Your task to perform on an android device: Open Amazon Image 0: 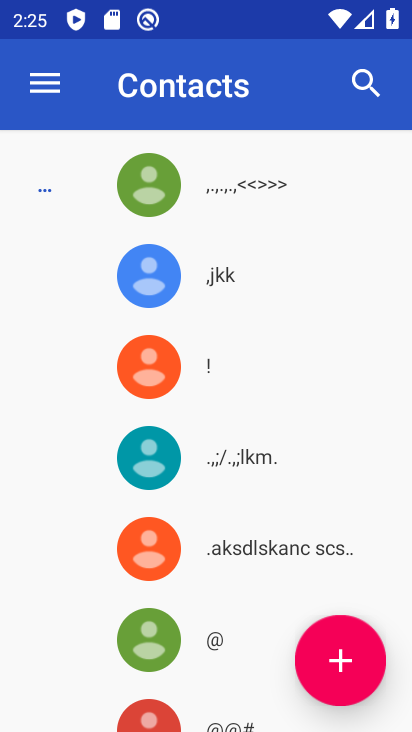
Step 0: press home button
Your task to perform on an android device: Open Amazon Image 1: 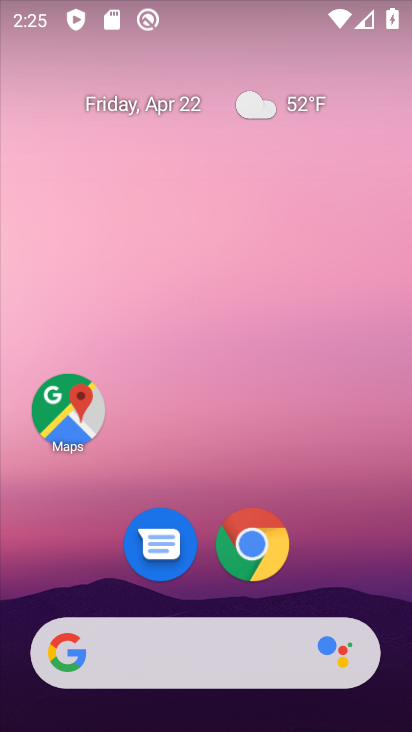
Step 1: click (250, 556)
Your task to perform on an android device: Open Amazon Image 2: 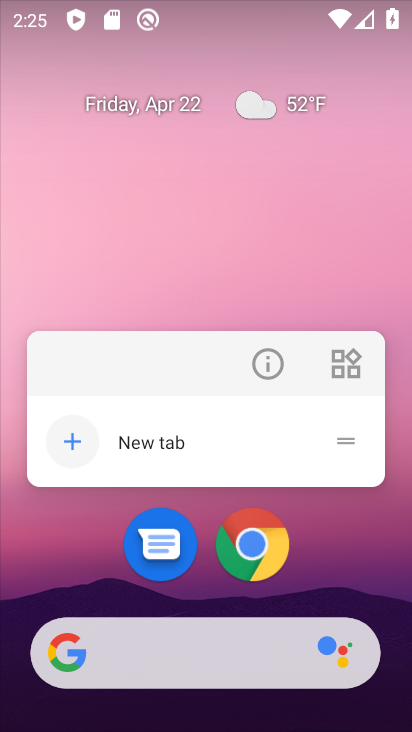
Step 2: click (250, 556)
Your task to perform on an android device: Open Amazon Image 3: 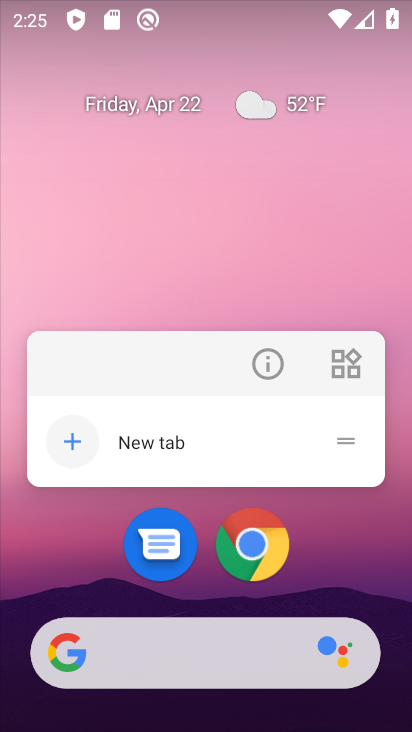
Step 3: click (250, 556)
Your task to perform on an android device: Open Amazon Image 4: 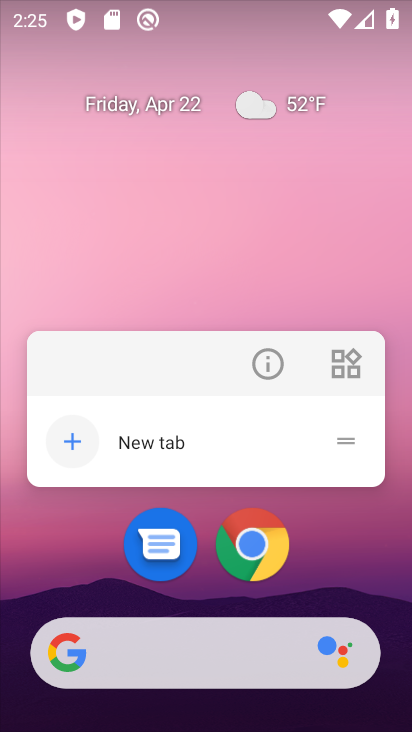
Step 4: click (108, 241)
Your task to perform on an android device: Open Amazon Image 5: 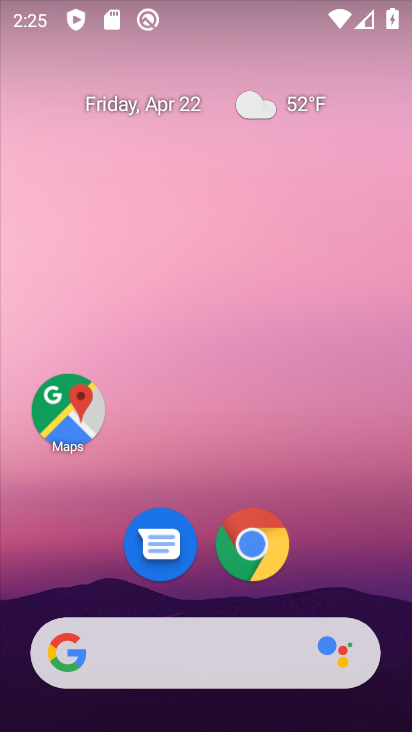
Step 5: click (262, 540)
Your task to perform on an android device: Open Amazon Image 6: 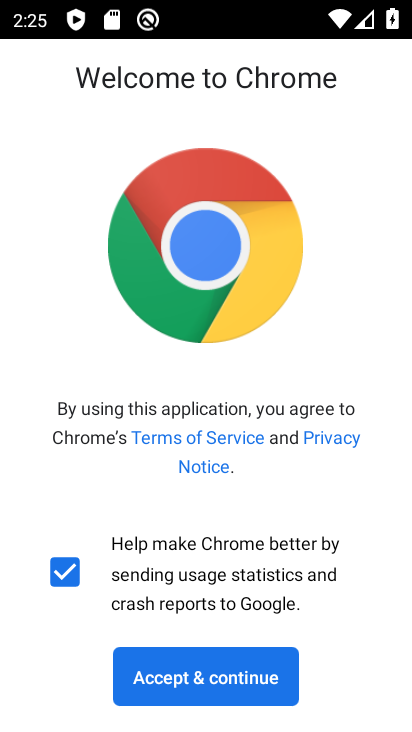
Step 6: click (262, 682)
Your task to perform on an android device: Open Amazon Image 7: 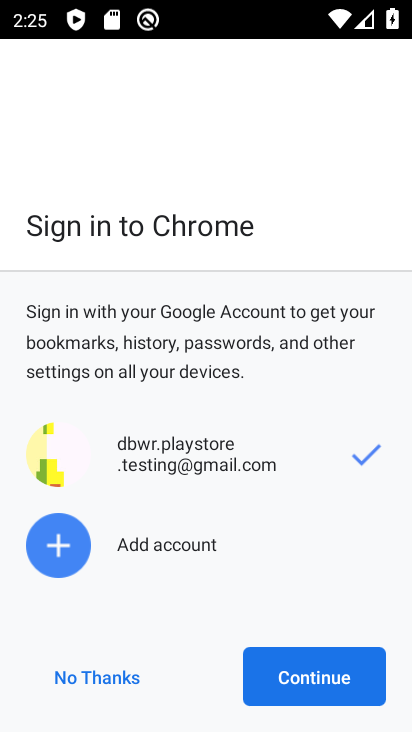
Step 7: click (262, 682)
Your task to perform on an android device: Open Amazon Image 8: 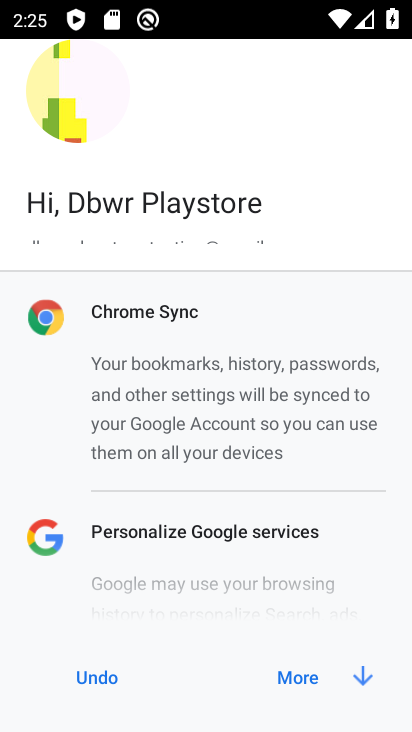
Step 8: click (287, 678)
Your task to perform on an android device: Open Amazon Image 9: 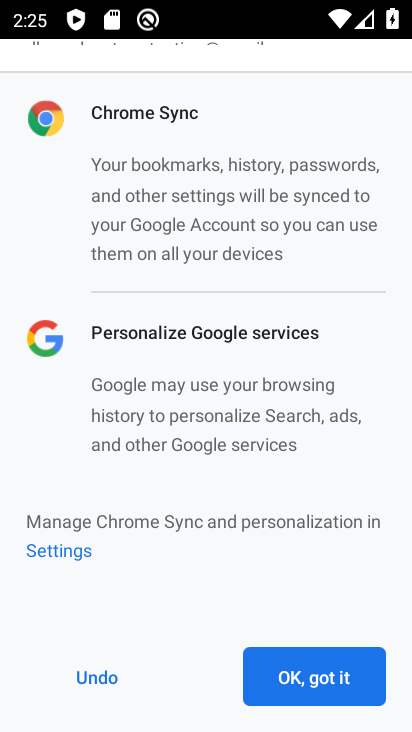
Step 9: click (287, 678)
Your task to perform on an android device: Open Amazon Image 10: 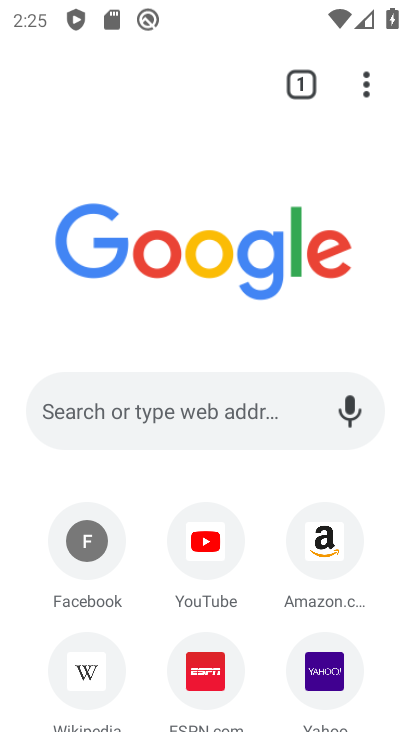
Step 10: click (327, 541)
Your task to perform on an android device: Open Amazon Image 11: 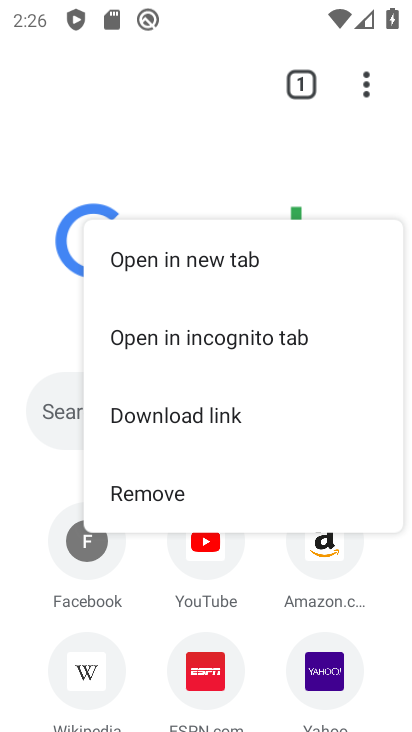
Step 11: click (327, 541)
Your task to perform on an android device: Open Amazon Image 12: 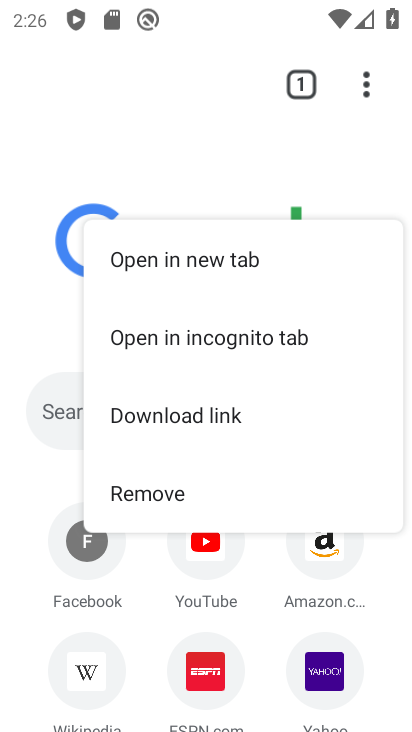
Step 12: click (320, 575)
Your task to perform on an android device: Open Amazon Image 13: 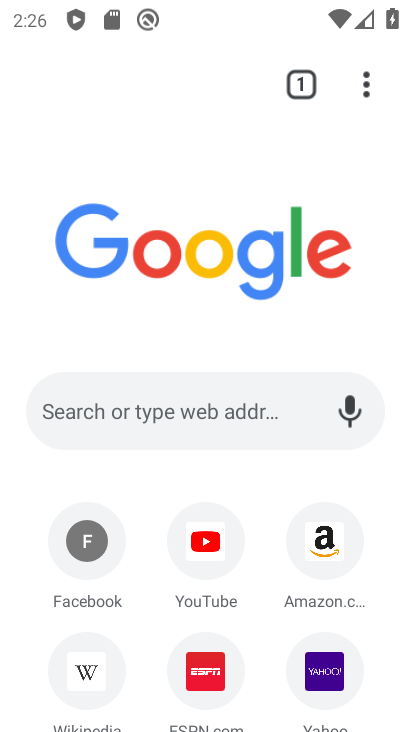
Step 13: click (320, 575)
Your task to perform on an android device: Open Amazon Image 14: 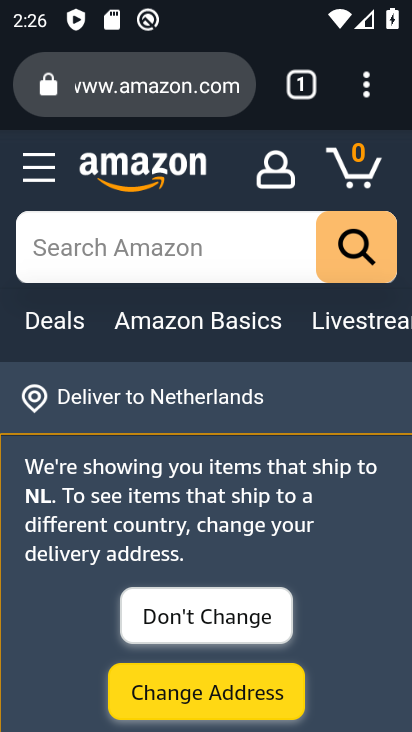
Step 14: task complete